Your task to perform on an android device: Open calendar and show me the fourth week of next month Image 0: 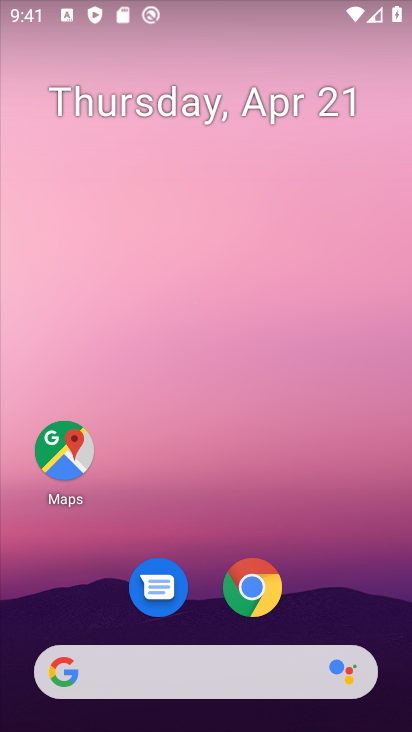
Step 0: drag from (49, 414) to (172, 123)
Your task to perform on an android device: Open calendar and show me the fourth week of next month Image 1: 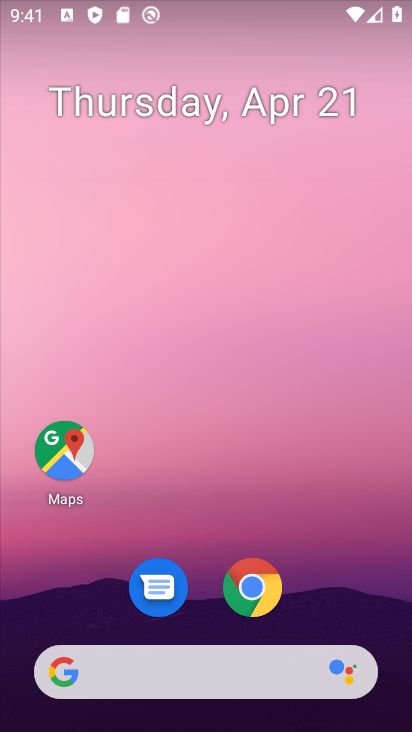
Step 1: drag from (21, 613) to (278, 183)
Your task to perform on an android device: Open calendar and show me the fourth week of next month Image 2: 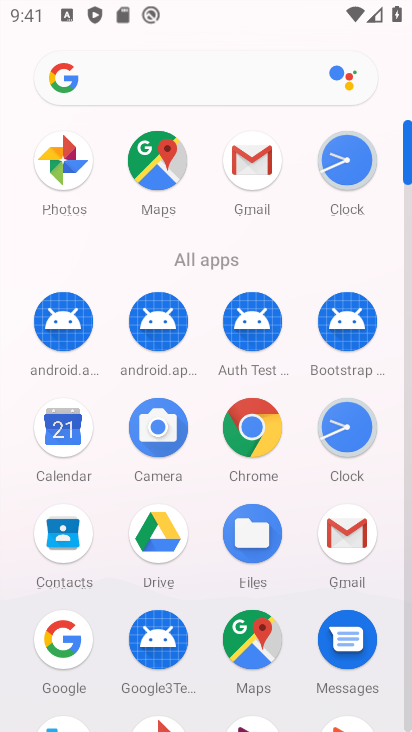
Step 2: click (59, 436)
Your task to perform on an android device: Open calendar and show me the fourth week of next month Image 3: 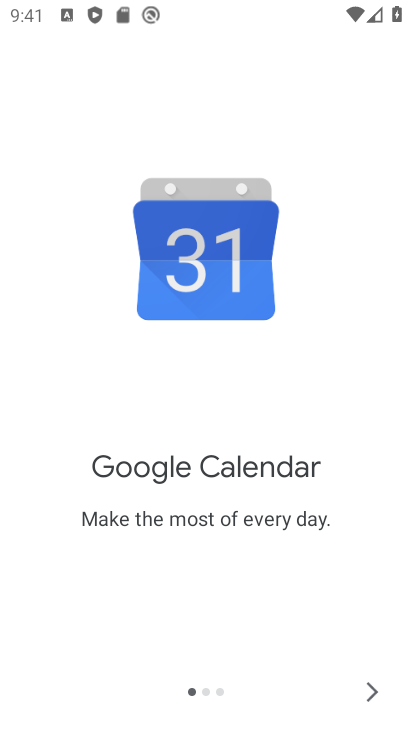
Step 3: click (368, 686)
Your task to perform on an android device: Open calendar and show me the fourth week of next month Image 4: 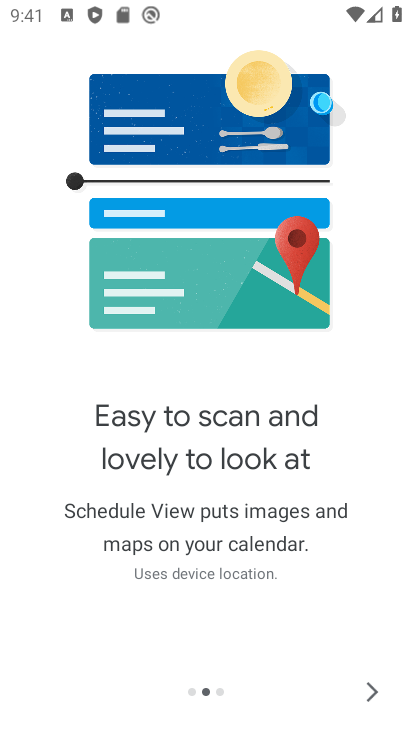
Step 4: click (368, 684)
Your task to perform on an android device: Open calendar and show me the fourth week of next month Image 5: 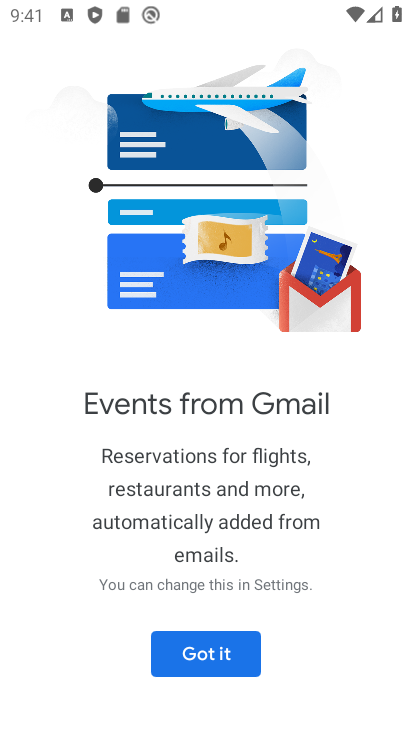
Step 5: click (207, 662)
Your task to perform on an android device: Open calendar and show me the fourth week of next month Image 6: 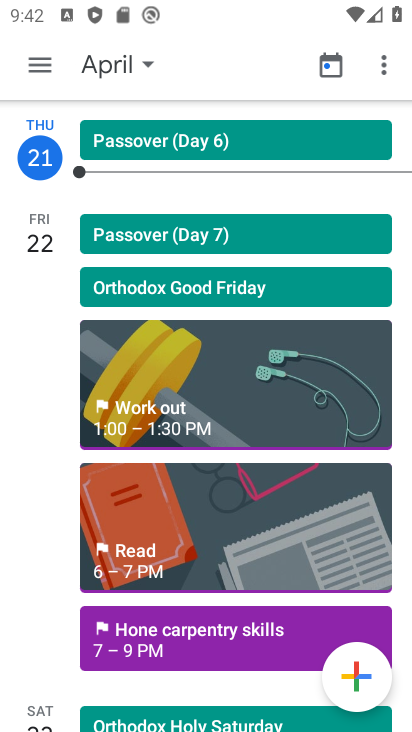
Step 6: click (121, 67)
Your task to perform on an android device: Open calendar and show me the fourth week of next month Image 7: 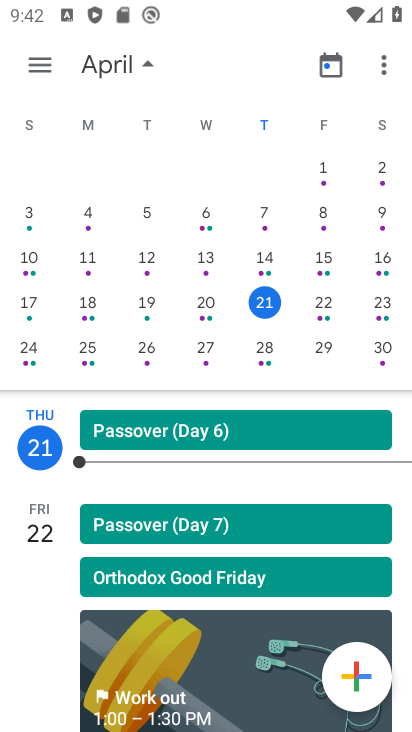
Step 7: drag from (321, 197) to (5, 174)
Your task to perform on an android device: Open calendar and show me the fourth week of next month Image 8: 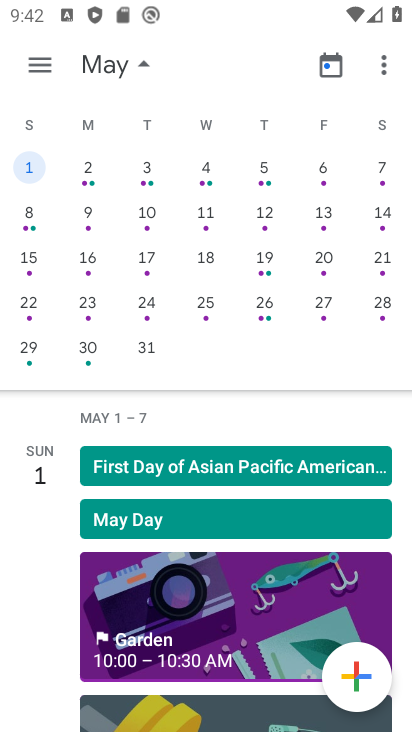
Step 8: click (192, 177)
Your task to perform on an android device: Open calendar and show me the fourth week of next month Image 9: 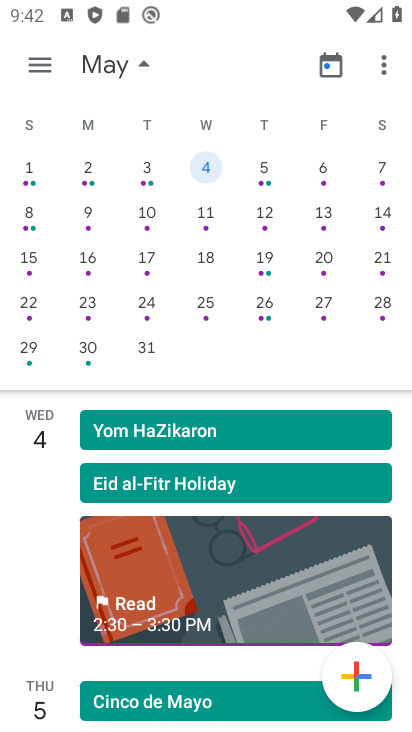
Step 9: click (202, 234)
Your task to perform on an android device: Open calendar and show me the fourth week of next month Image 10: 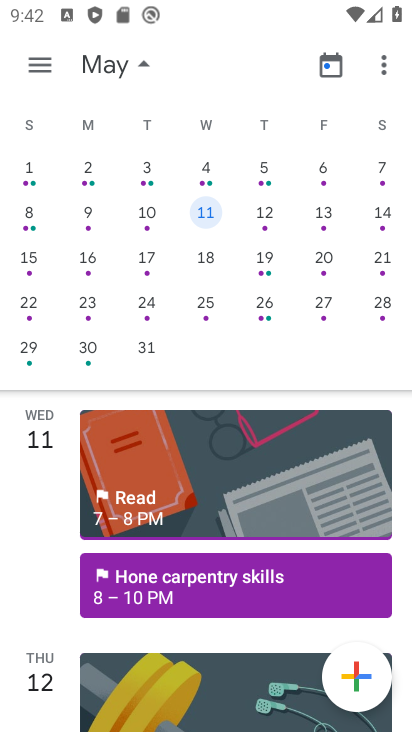
Step 10: click (211, 273)
Your task to perform on an android device: Open calendar and show me the fourth week of next month Image 11: 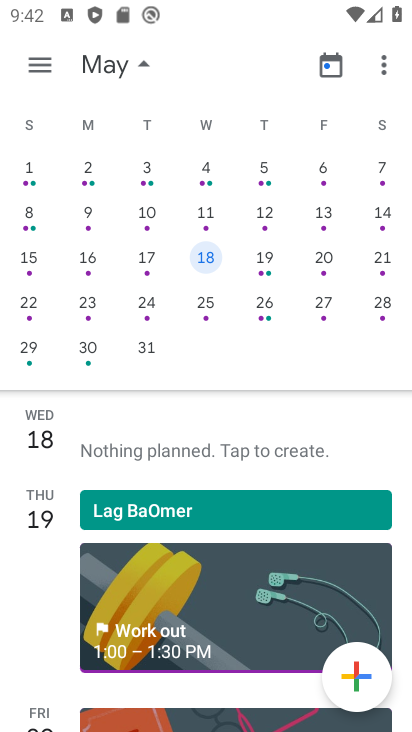
Step 11: click (210, 313)
Your task to perform on an android device: Open calendar and show me the fourth week of next month Image 12: 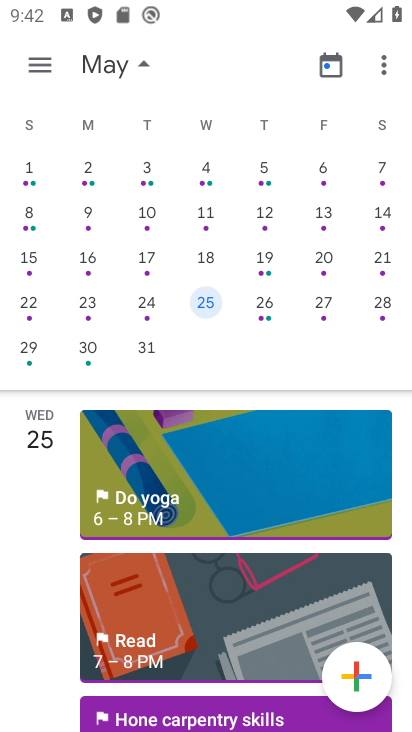
Step 12: task complete